Your task to perform on an android device: Open Google Image 0: 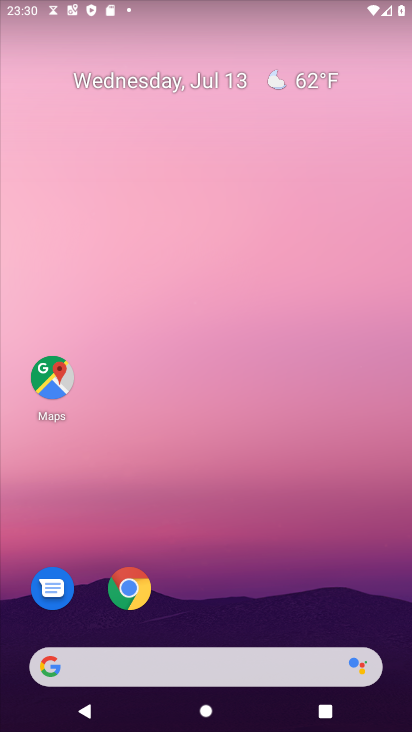
Step 0: drag from (181, 492) to (186, 316)
Your task to perform on an android device: Open Google Image 1: 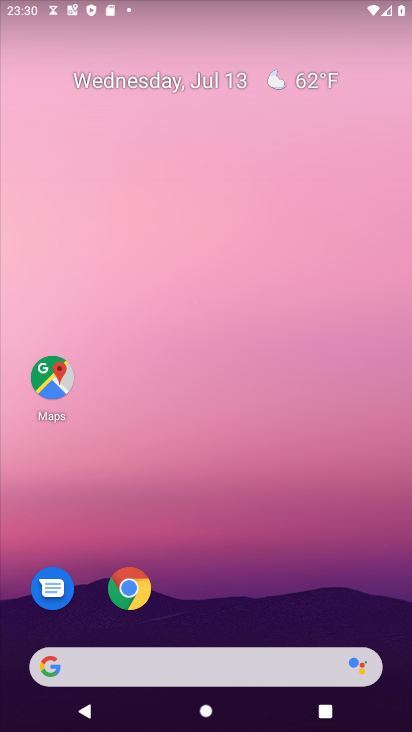
Step 1: drag from (236, 644) to (240, 123)
Your task to perform on an android device: Open Google Image 2: 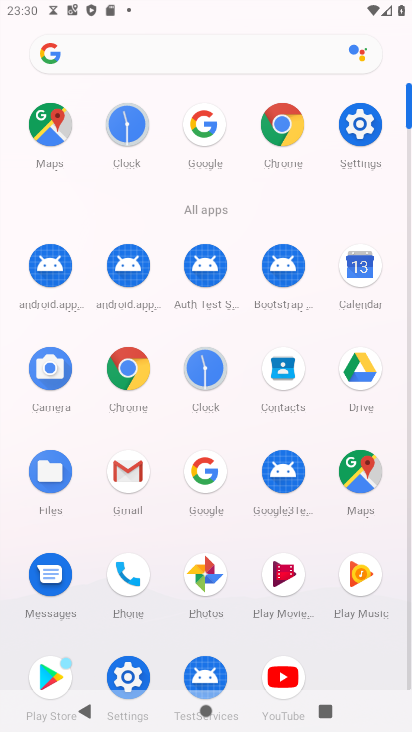
Step 2: click (205, 479)
Your task to perform on an android device: Open Google Image 3: 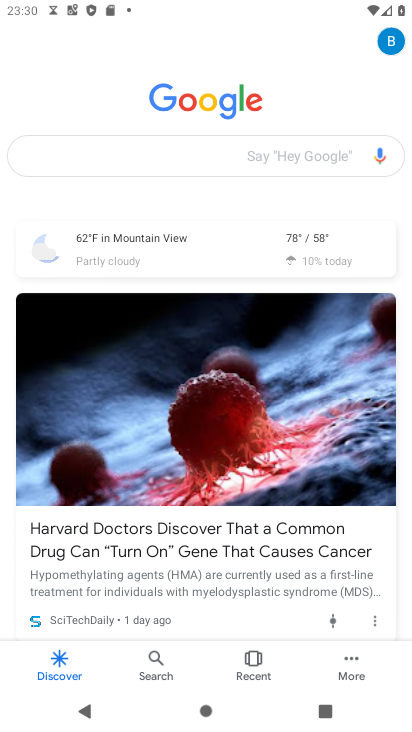
Step 3: task complete